Your task to perform on an android device: Search for Mexican restaurants on Maps Image 0: 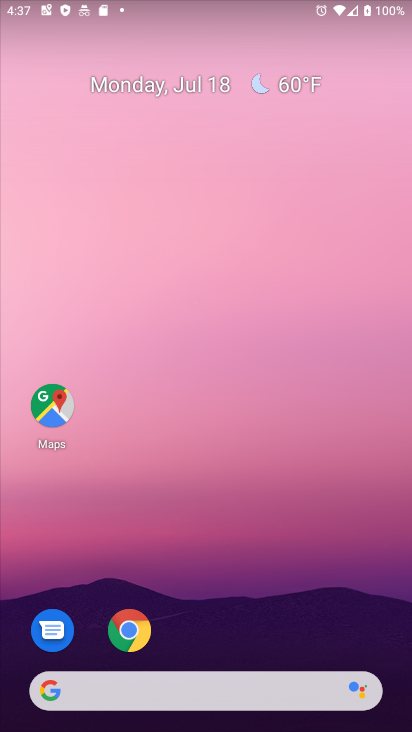
Step 0: drag from (289, 680) to (202, 228)
Your task to perform on an android device: Search for Mexican restaurants on Maps Image 1: 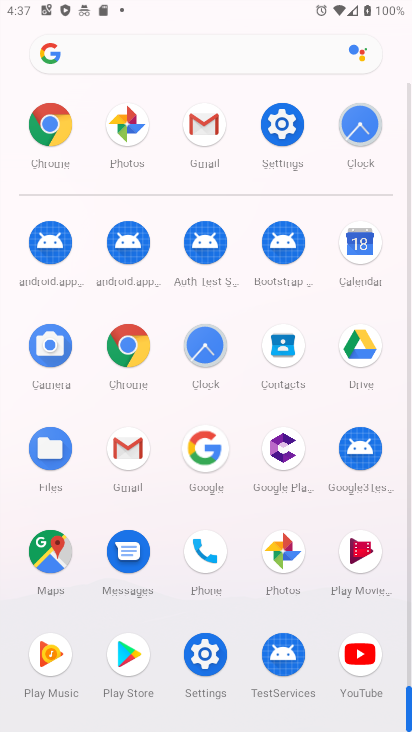
Step 1: click (52, 538)
Your task to perform on an android device: Search for Mexican restaurants on Maps Image 2: 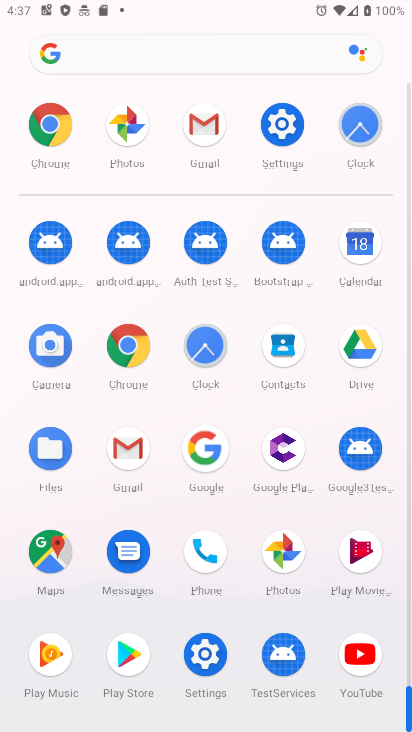
Step 2: click (47, 541)
Your task to perform on an android device: Search for Mexican restaurants on Maps Image 3: 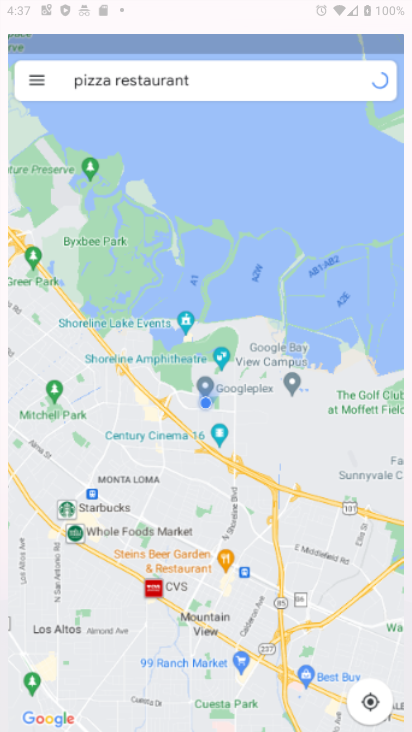
Step 3: click (47, 541)
Your task to perform on an android device: Search for Mexican restaurants on Maps Image 4: 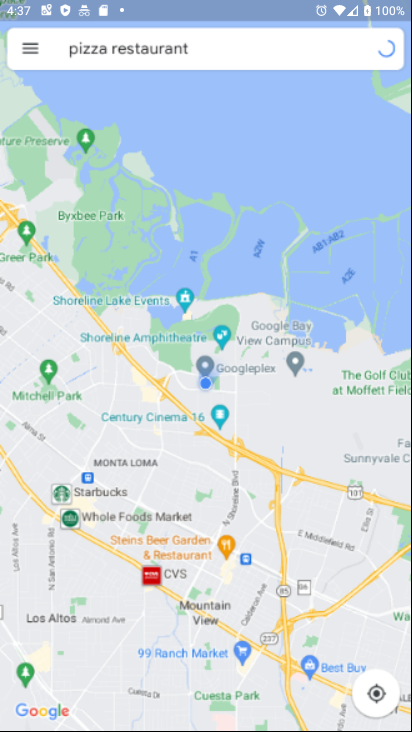
Step 4: click (52, 543)
Your task to perform on an android device: Search for Mexican restaurants on Maps Image 5: 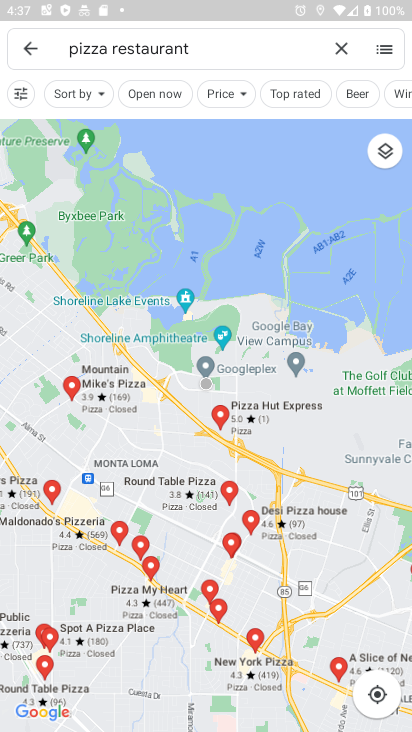
Step 5: click (219, 48)
Your task to perform on an android device: Search for Mexican restaurants on Maps Image 6: 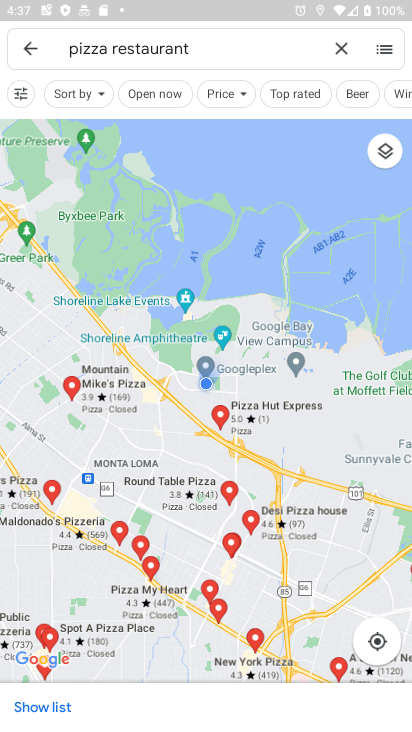
Step 6: click (220, 49)
Your task to perform on an android device: Search for Mexican restaurants on Maps Image 7: 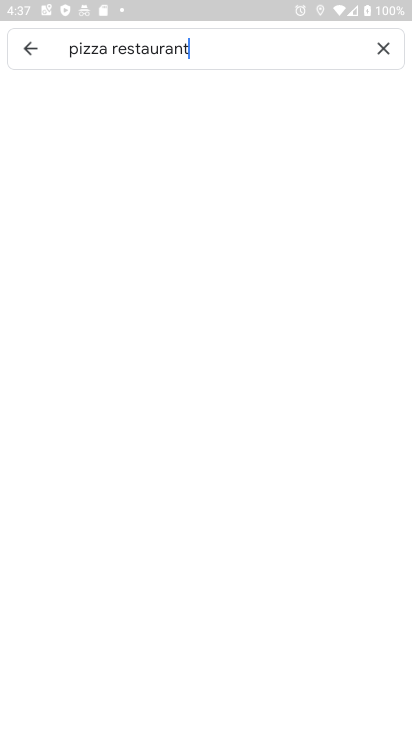
Step 7: click (336, 49)
Your task to perform on an android device: Search for Mexican restaurants on Maps Image 8: 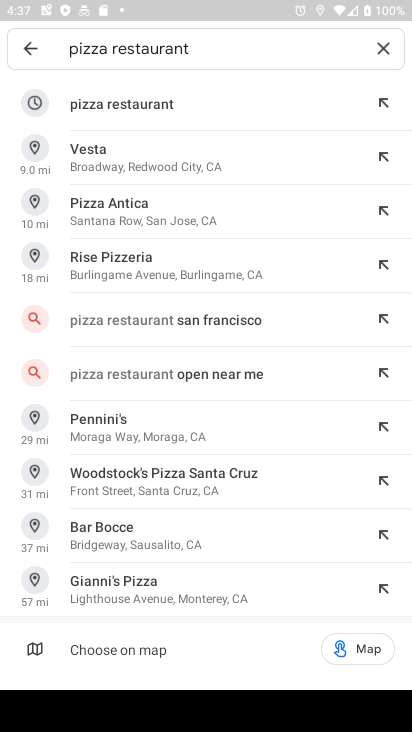
Step 8: click (340, 40)
Your task to perform on an android device: Search for Mexican restaurants on Maps Image 9: 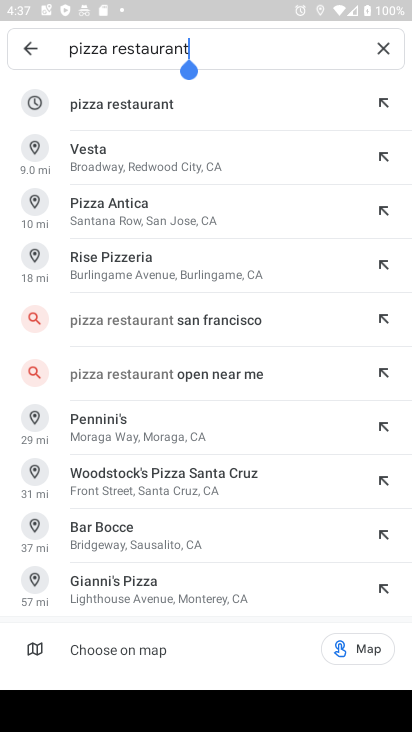
Step 9: click (390, 42)
Your task to perform on an android device: Search for Mexican restaurants on Maps Image 10: 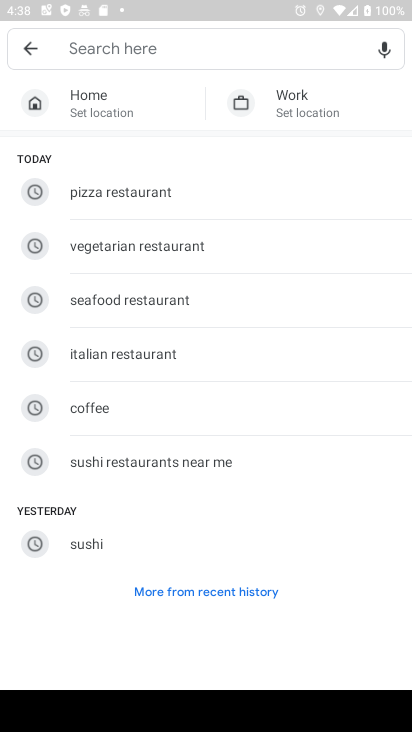
Step 10: type "mexican restaurants"
Your task to perform on an android device: Search for Mexican restaurants on Maps Image 11: 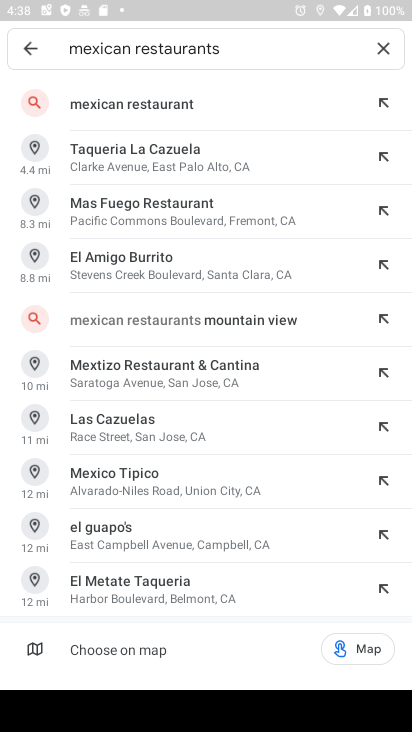
Step 11: click (183, 90)
Your task to perform on an android device: Search for Mexican restaurants on Maps Image 12: 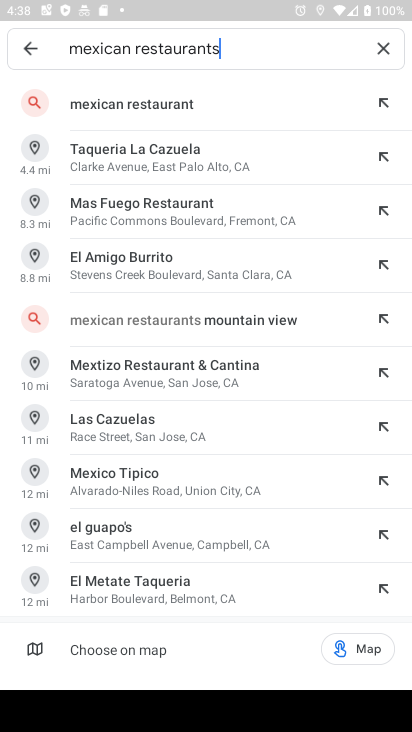
Step 12: task complete